Your task to perform on an android device: turn off location Image 0: 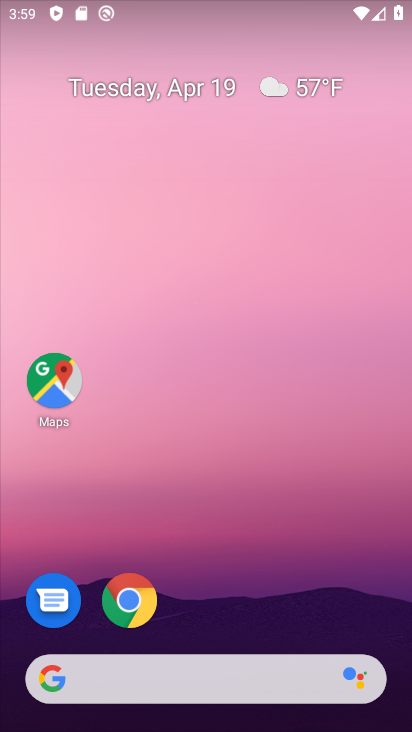
Step 0: drag from (300, 599) to (262, 142)
Your task to perform on an android device: turn off location Image 1: 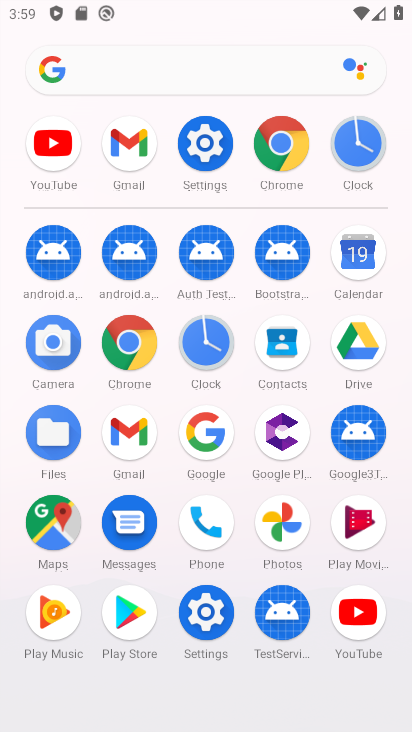
Step 1: click (209, 167)
Your task to perform on an android device: turn off location Image 2: 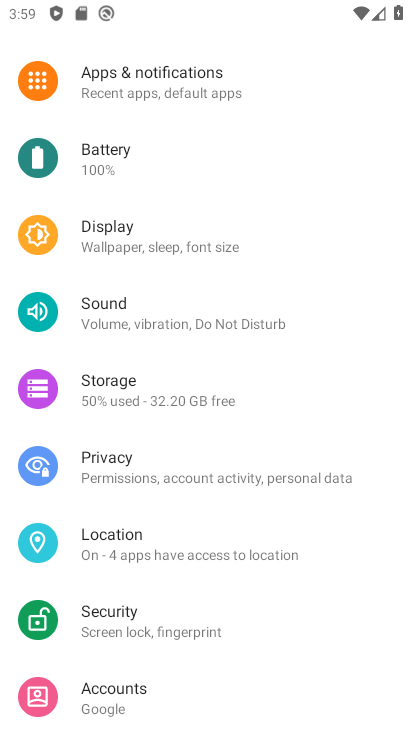
Step 2: click (296, 549)
Your task to perform on an android device: turn off location Image 3: 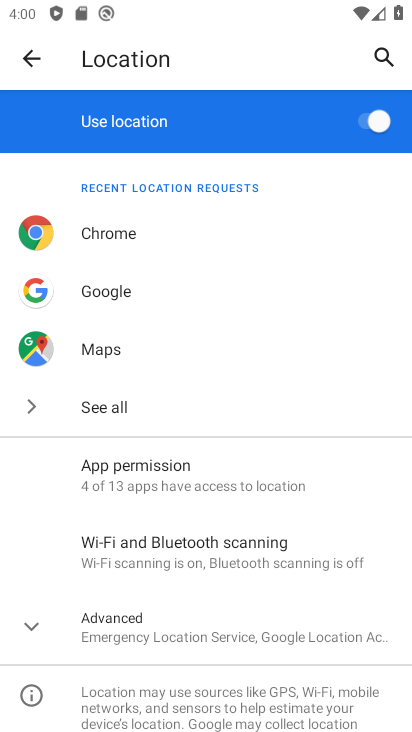
Step 3: click (353, 123)
Your task to perform on an android device: turn off location Image 4: 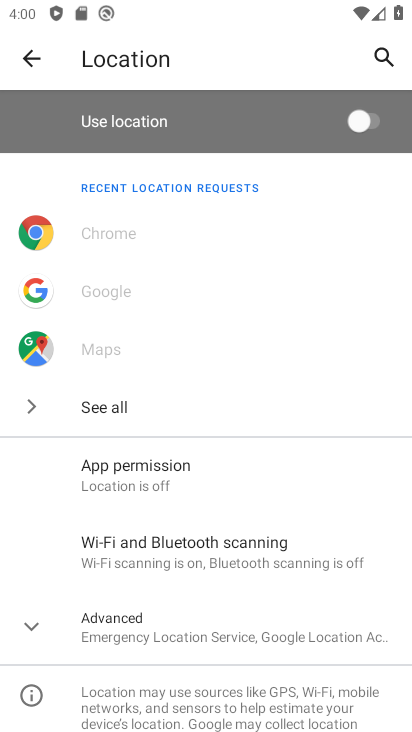
Step 4: task complete